Your task to perform on an android device: Open eBay Image 0: 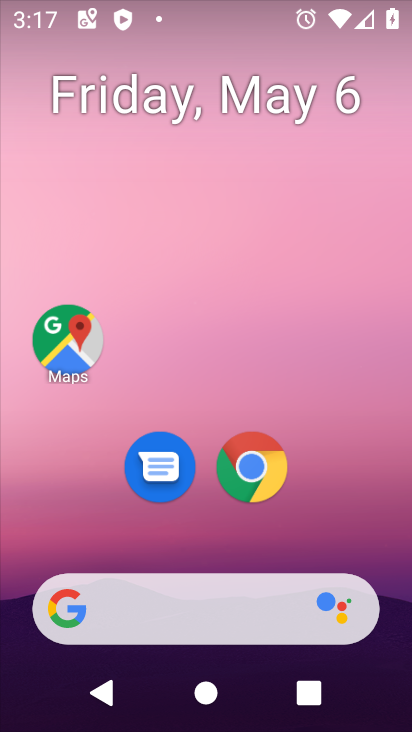
Step 0: click (241, 480)
Your task to perform on an android device: Open eBay Image 1: 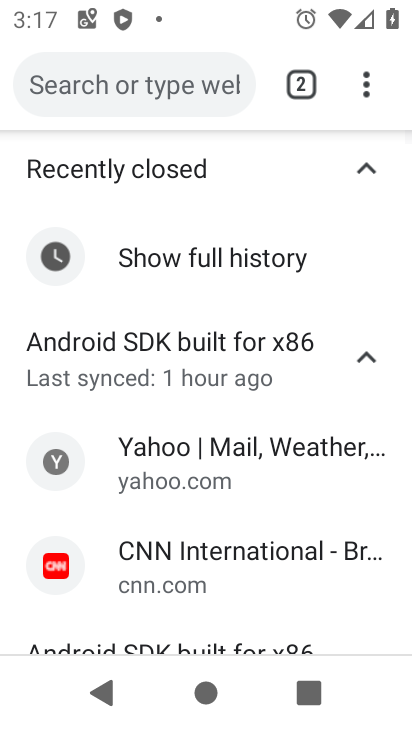
Step 1: click (118, 82)
Your task to perform on an android device: Open eBay Image 2: 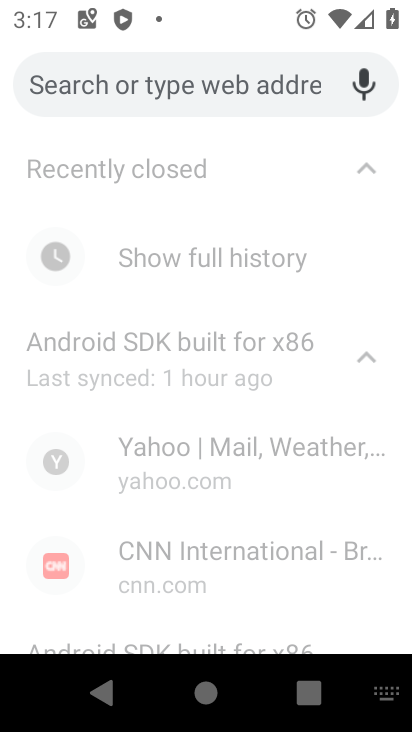
Step 2: click (115, 87)
Your task to perform on an android device: Open eBay Image 3: 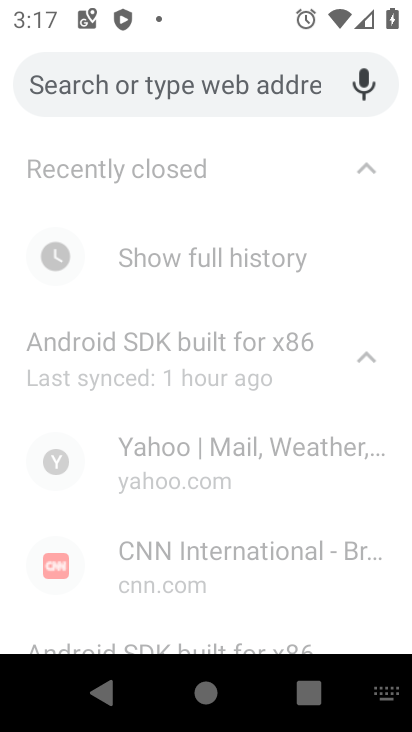
Step 3: type "ebay"
Your task to perform on an android device: Open eBay Image 4: 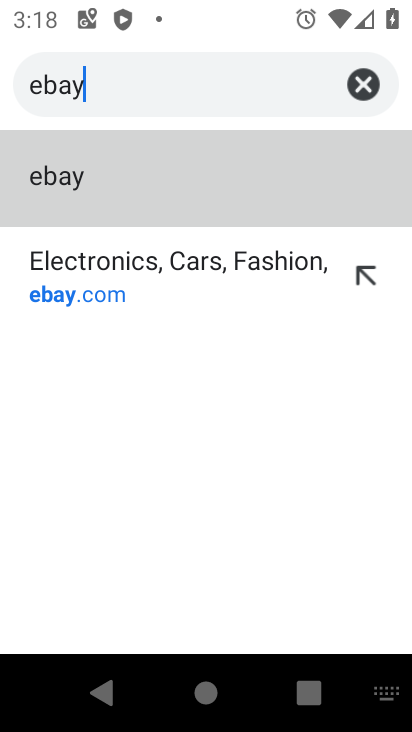
Step 4: click (102, 169)
Your task to perform on an android device: Open eBay Image 5: 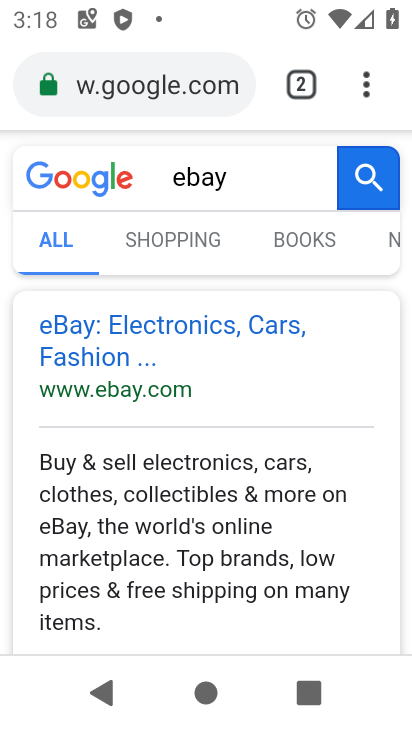
Step 5: click (122, 326)
Your task to perform on an android device: Open eBay Image 6: 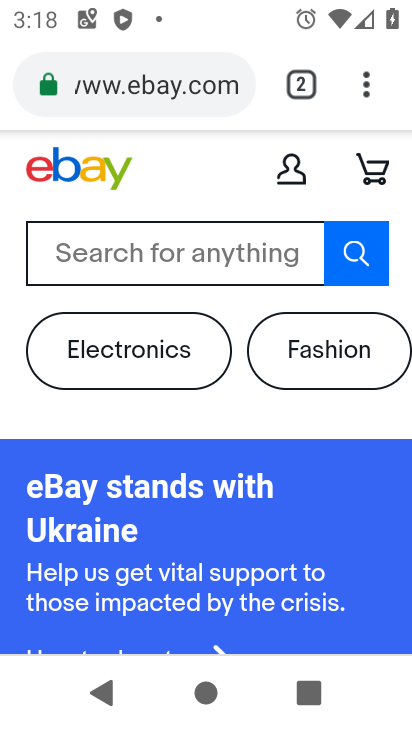
Step 6: task complete